Your task to perform on an android device: When is my next meeting? Image 0: 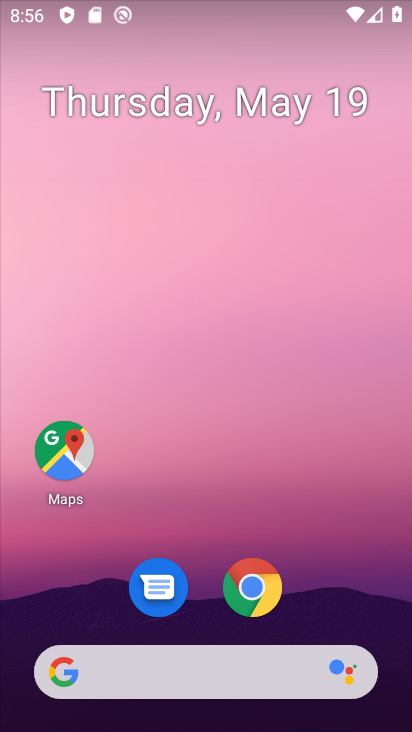
Step 0: drag from (353, 590) to (249, 209)
Your task to perform on an android device: When is my next meeting? Image 1: 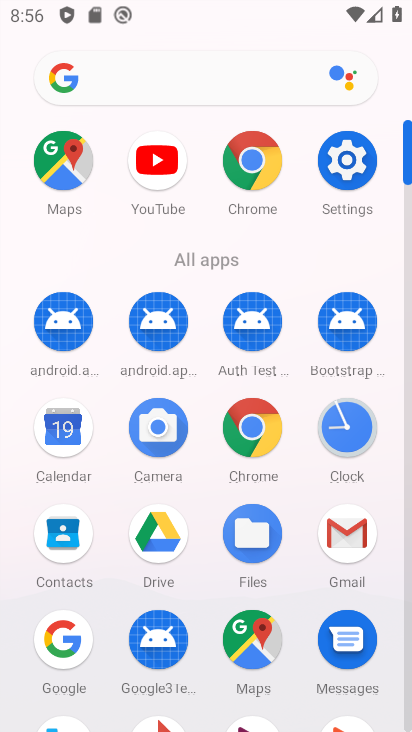
Step 1: click (63, 424)
Your task to perform on an android device: When is my next meeting? Image 2: 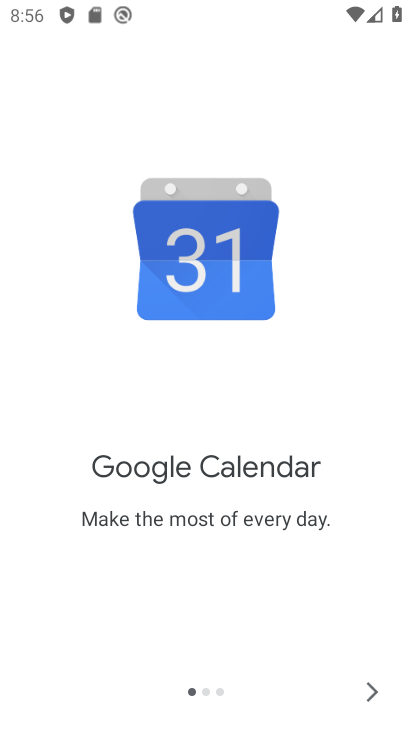
Step 2: click (368, 676)
Your task to perform on an android device: When is my next meeting? Image 3: 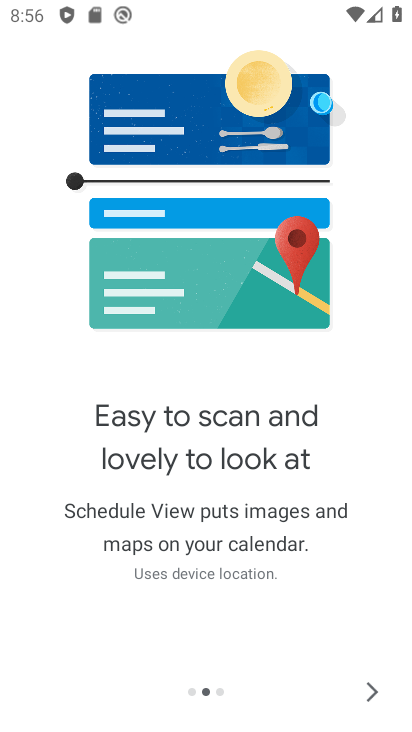
Step 3: click (368, 674)
Your task to perform on an android device: When is my next meeting? Image 4: 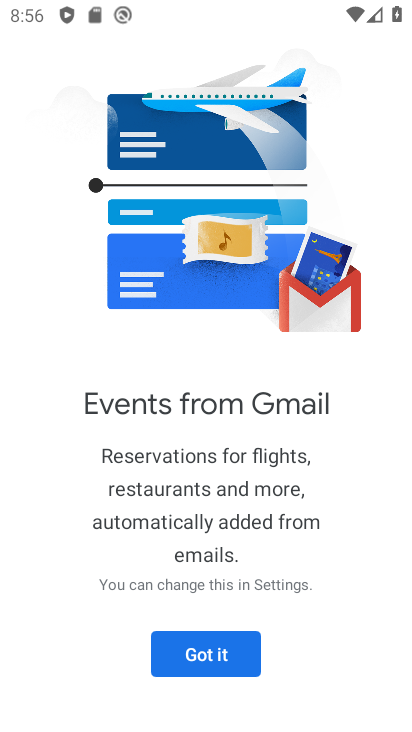
Step 4: click (214, 677)
Your task to perform on an android device: When is my next meeting? Image 5: 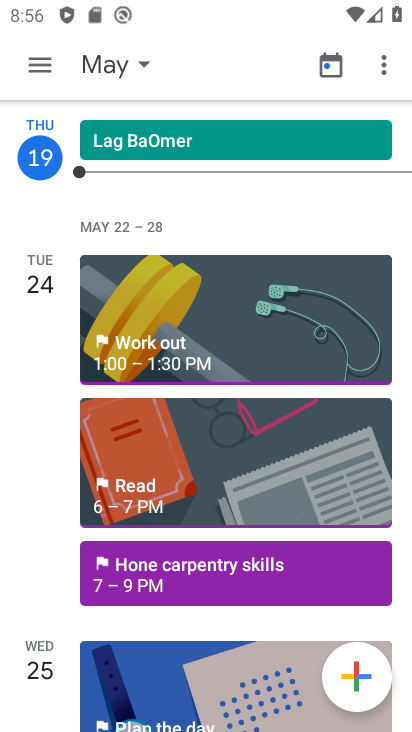
Step 5: click (33, 164)
Your task to perform on an android device: When is my next meeting? Image 6: 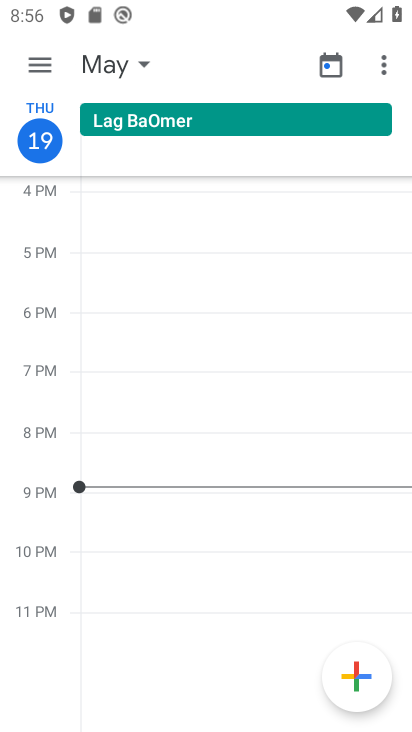
Step 6: click (56, 64)
Your task to perform on an android device: When is my next meeting? Image 7: 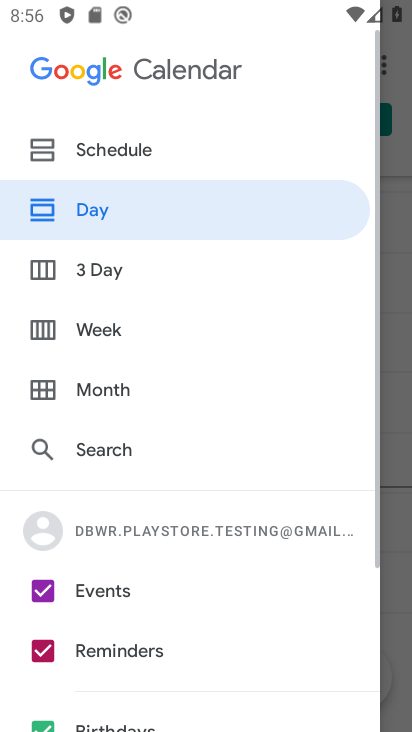
Step 7: click (101, 260)
Your task to perform on an android device: When is my next meeting? Image 8: 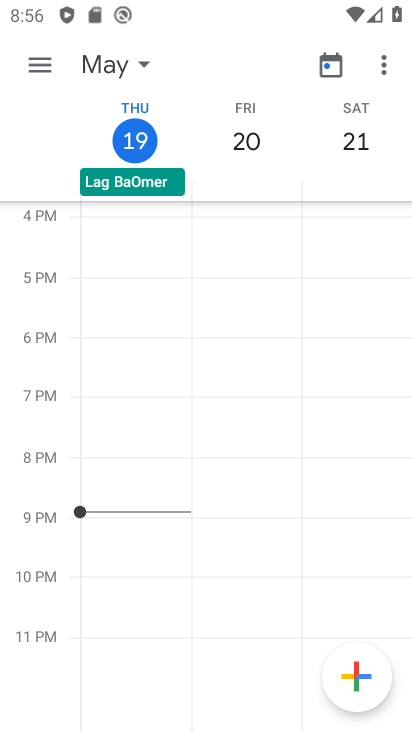
Step 8: drag from (297, 444) to (322, 152)
Your task to perform on an android device: When is my next meeting? Image 9: 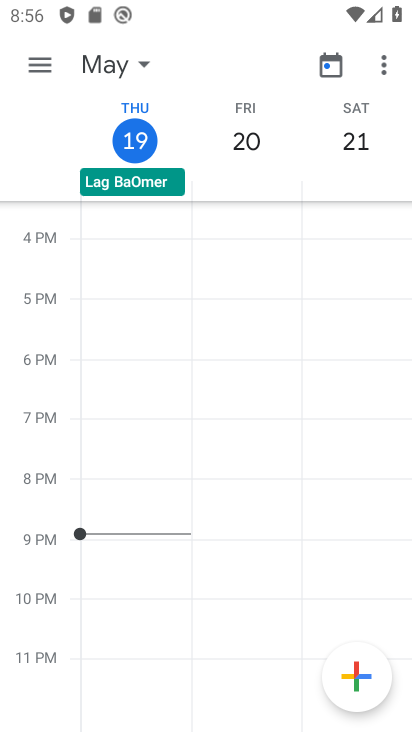
Step 9: click (280, 350)
Your task to perform on an android device: When is my next meeting? Image 10: 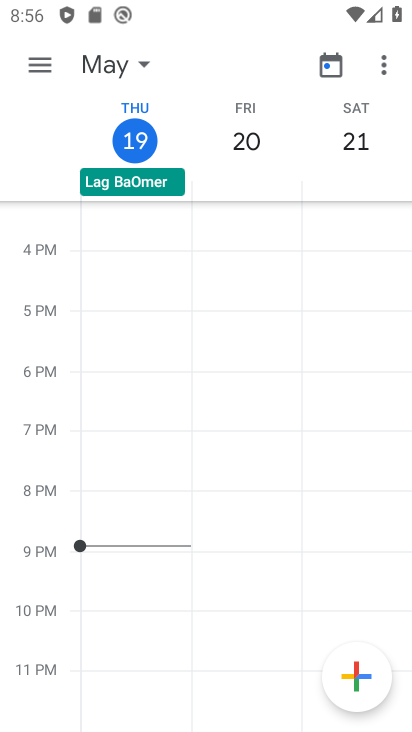
Step 10: click (47, 54)
Your task to perform on an android device: When is my next meeting? Image 11: 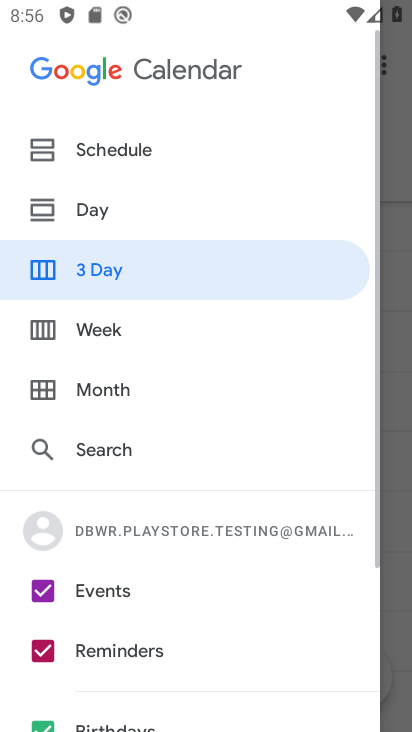
Step 11: click (95, 331)
Your task to perform on an android device: When is my next meeting? Image 12: 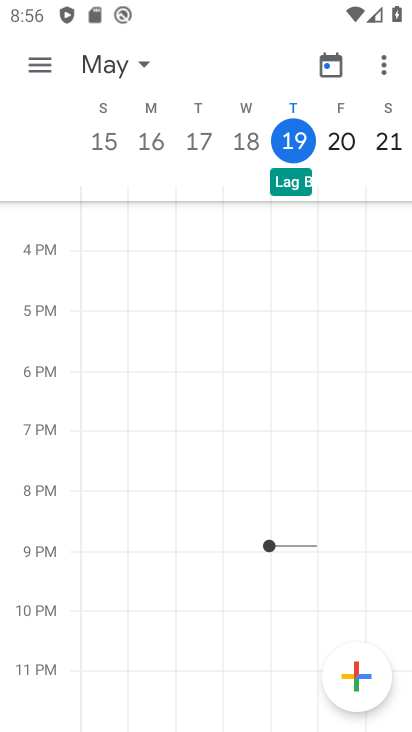
Step 12: drag from (330, 303) to (14, 237)
Your task to perform on an android device: When is my next meeting? Image 13: 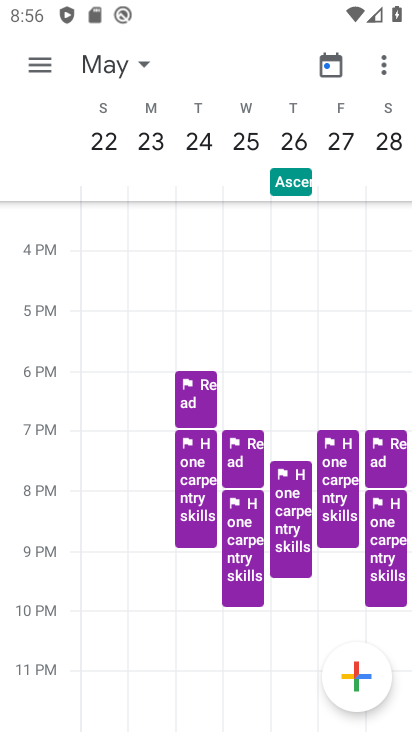
Step 13: drag from (216, 305) to (382, 295)
Your task to perform on an android device: When is my next meeting? Image 14: 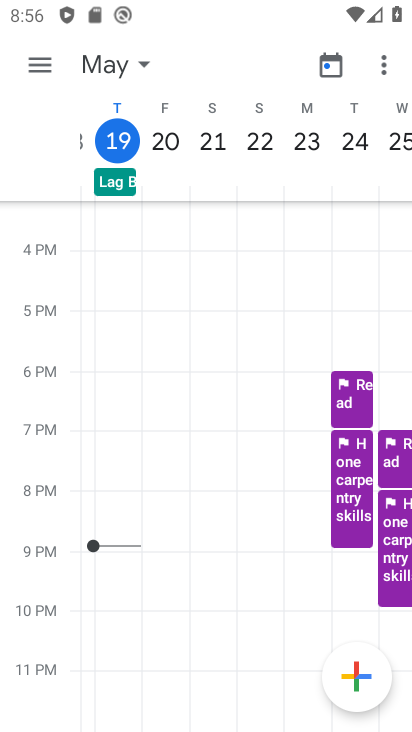
Step 14: click (382, 295)
Your task to perform on an android device: When is my next meeting? Image 15: 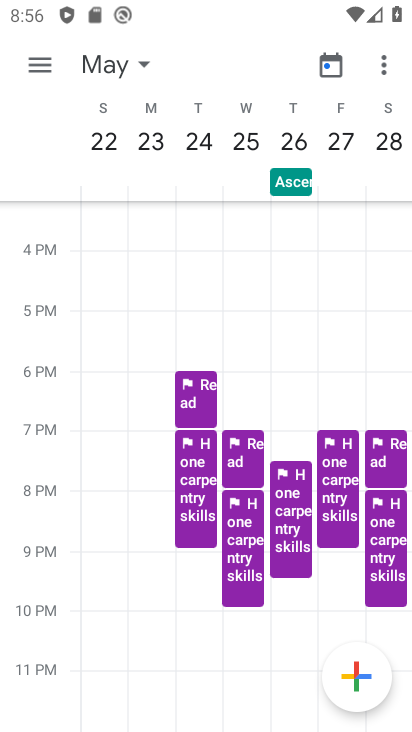
Step 15: drag from (275, 301) to (392, 298)
Your task to perform on an android device: When is my next meeting? Image 16: 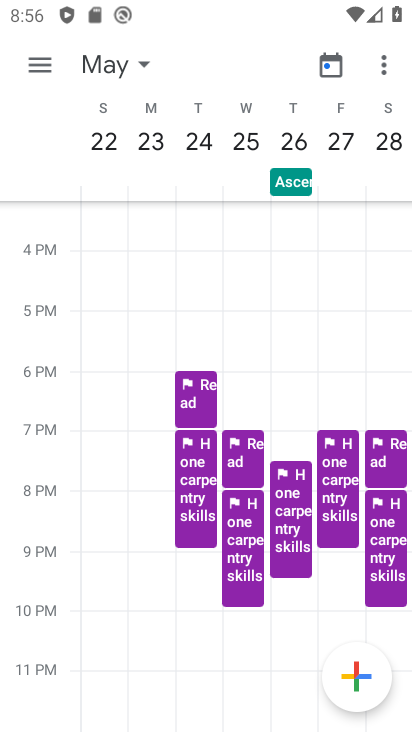
Step 16: drag from (131, 257) to (355, 265)
Your task to perform on an android device: When is my next meeting? Image 17: 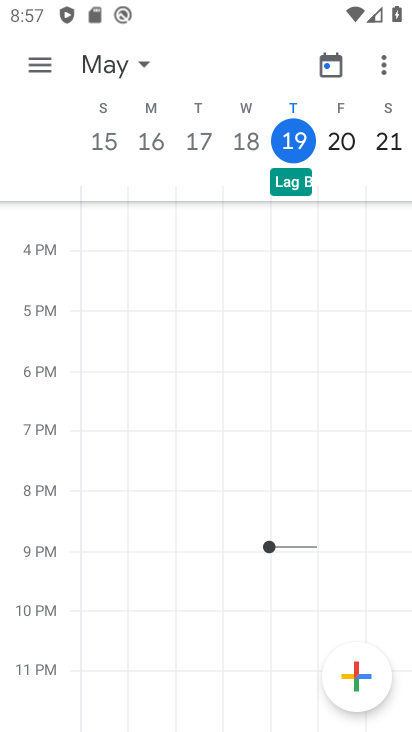
Step 17: click (291, 160)
Your task to perform on an android device: When is my next meeting? Image 18: 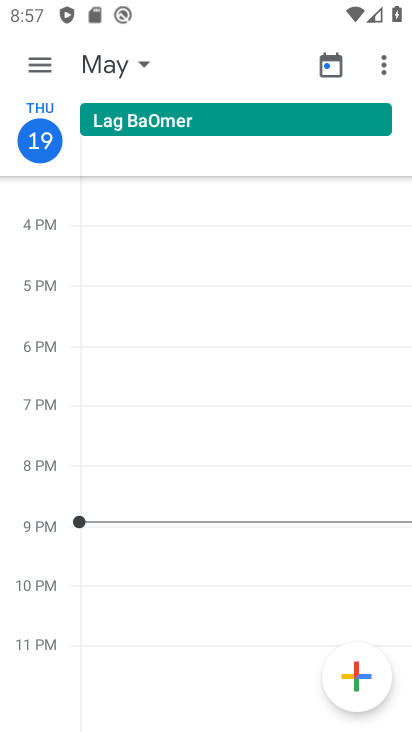
Step 18: task complete